Your task to perform on an android device: delete location history Image 0: 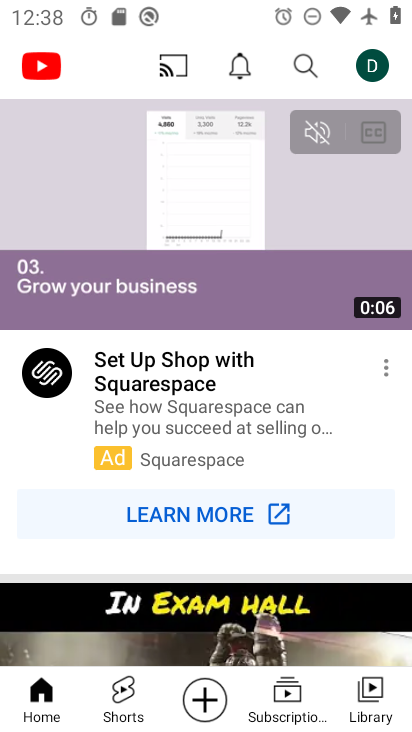
Step 0: press home button
Your task to perform on an android device: delete location history Image 1: 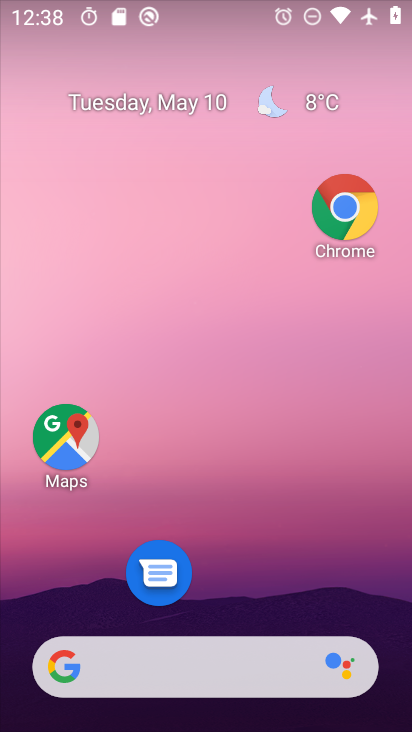
Step 1: click (55, 438)
Your task to perform on an android device: delete location history Image 2: 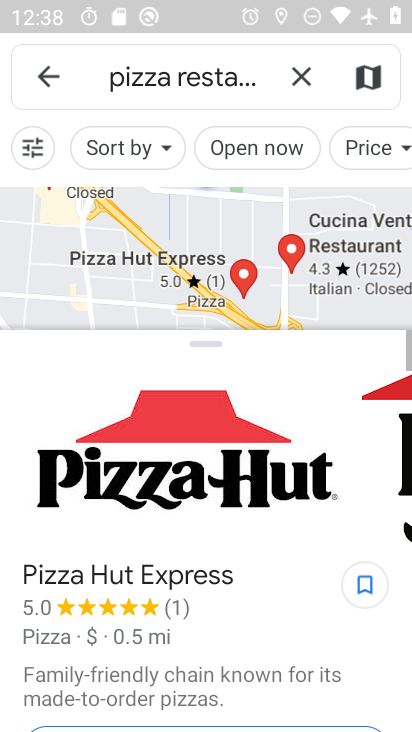
Step 2: click (35, 73)
Your task to perform on an android device: delete location history Image 3: 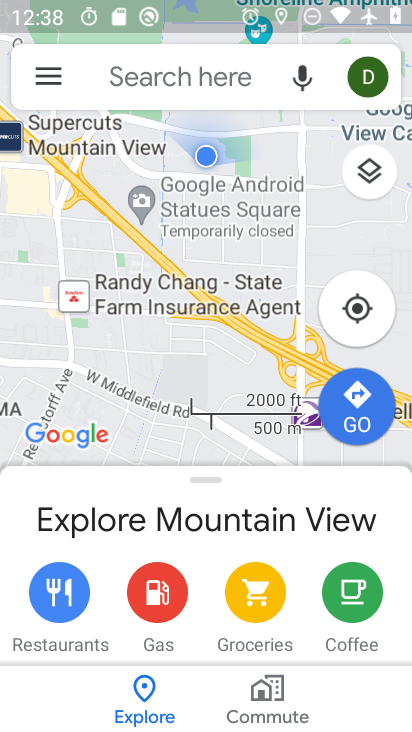
Step 3: click (36, 40)
Your task to perform on an android device: delete location history Image 4: 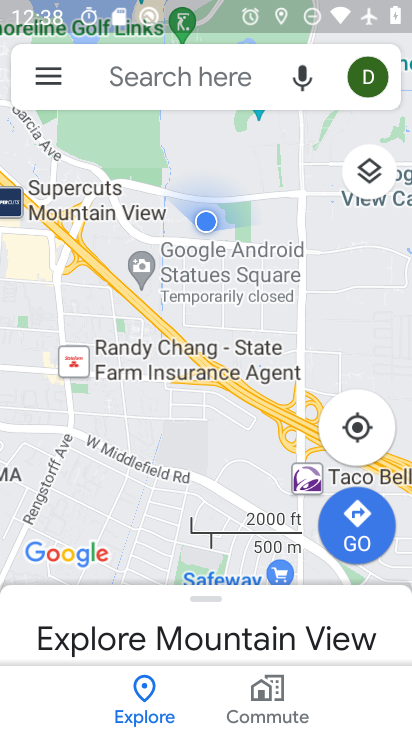
Step 4: click (46, 66)
Your task to perform on an android device: delete location history Image 5: 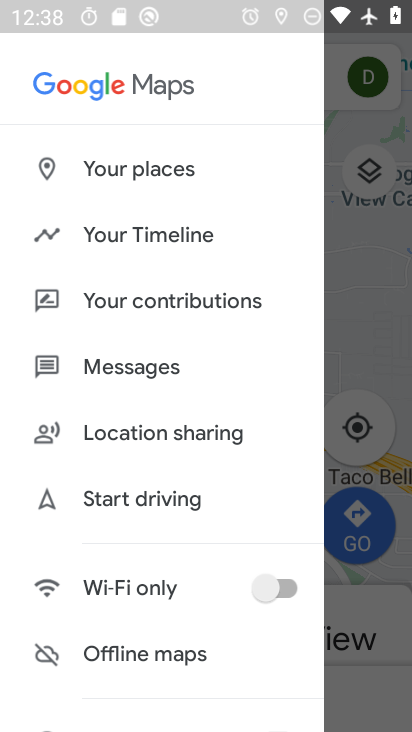
Step 5: drag from (196, 664) to (197, 286)
Your task to perform on an android device: delete location history Image 6: 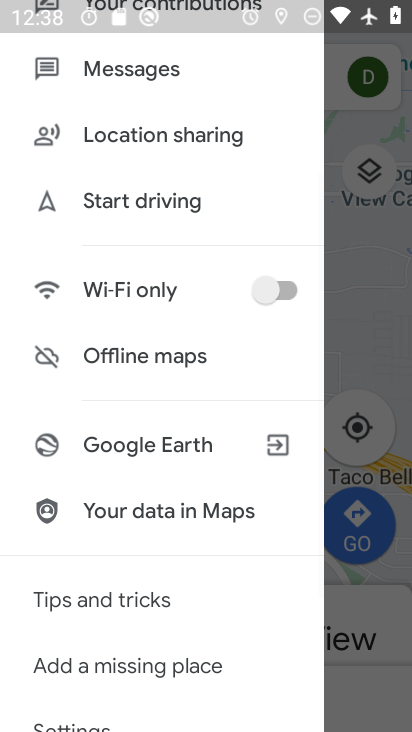
Step 6: drag from (167, 615) to (210, 340)
Your task to perform on an android device: delete location history Image 7: 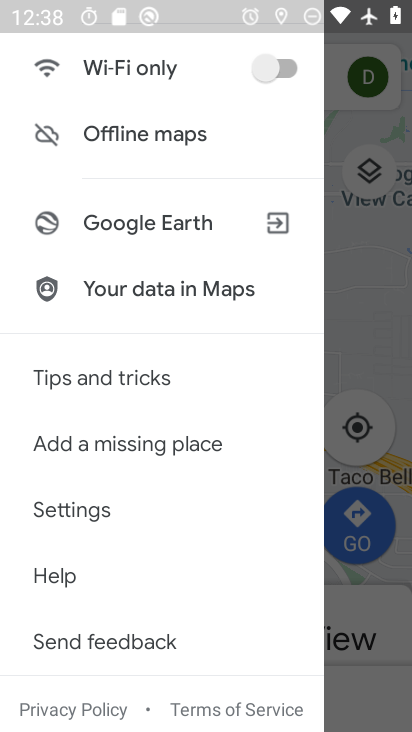
Step 7: drag from (195, 630) to (255, 371)
Your task to perform on an android device: delete location history Image 8: 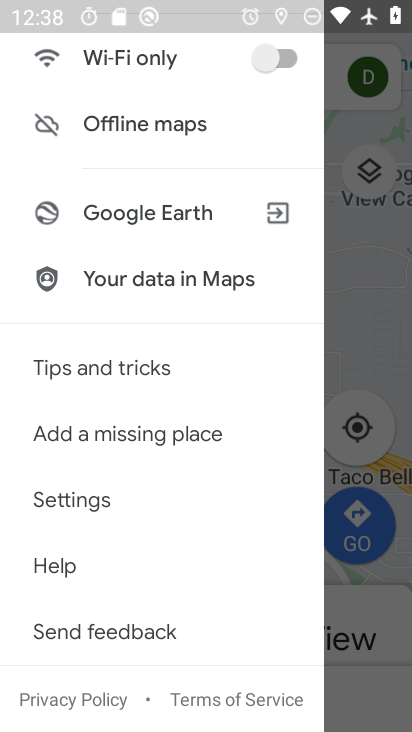
Step 8: click (99, 499)
Your task to perform on an android device: delete location history Image 9: 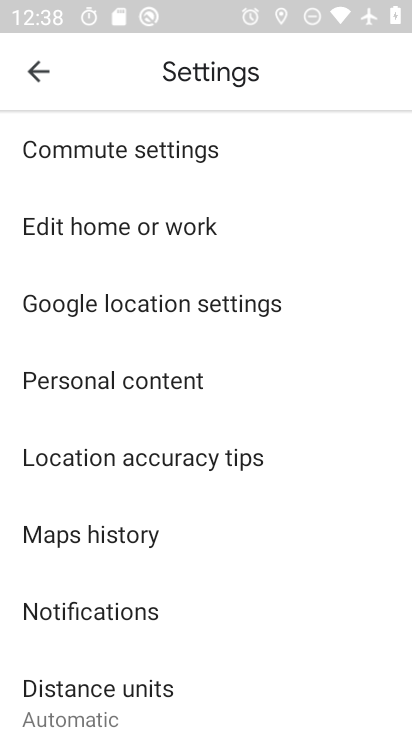
Step 9: click (93, 525)
Your task to perform on an android device: delete location history Image 10: 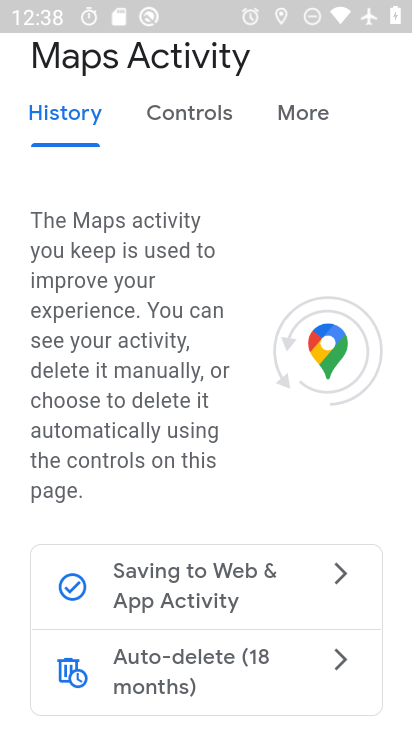
Step 10: drag from (246, 590) to (285, 213)
Your task to perform on an android device: delete location history Image 11: 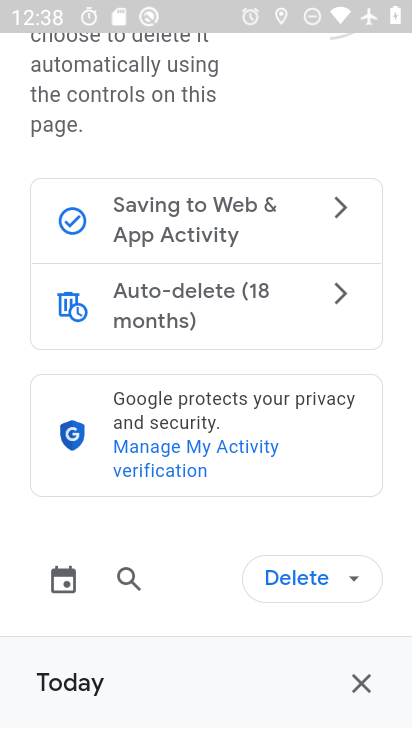
Step 11: click (301, 572)
Your task to perform on an android device: delete location history Image 12: 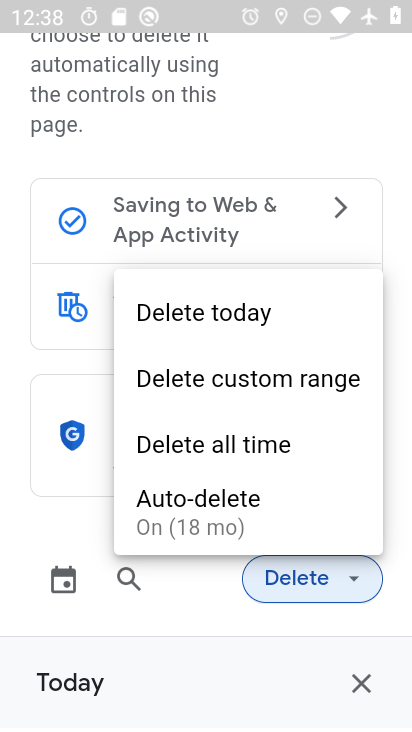
Step 12: click (279, 442)
Your task to perform on an android device: delete location history Image 13: 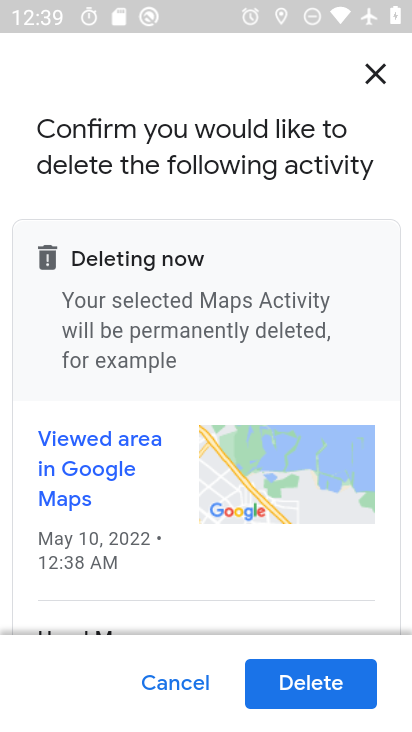
Step 13: click (320, 686)
Your task to perform on an android device: delete location history Image 14: 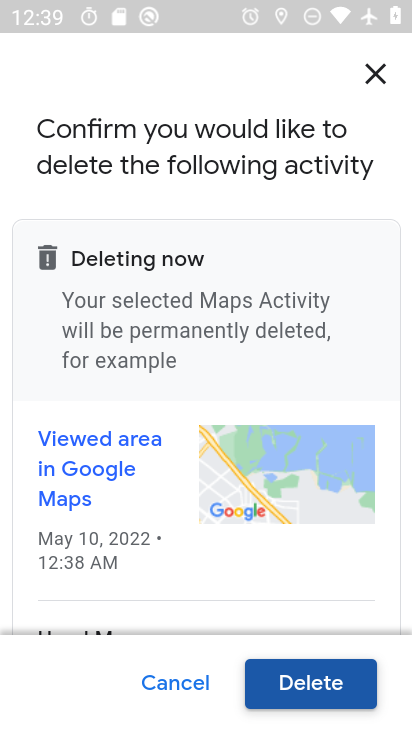
Step 14: click (321, 681)
Your task to perform on an android device: delete location history Image 15: 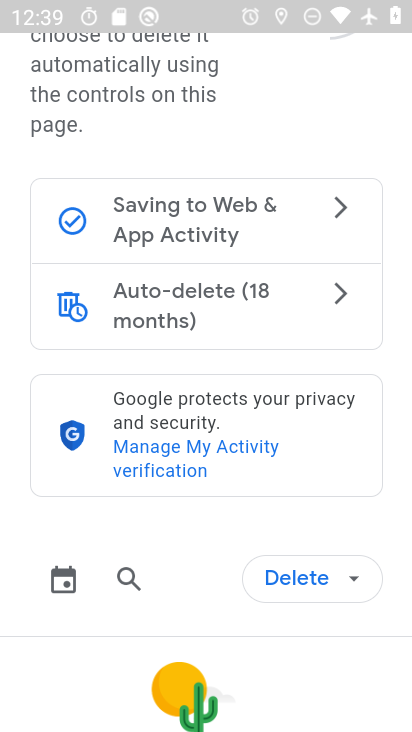
Step 15: task complete